Your task to perform on an android device: add a label to a message in the gmail app Image 0: 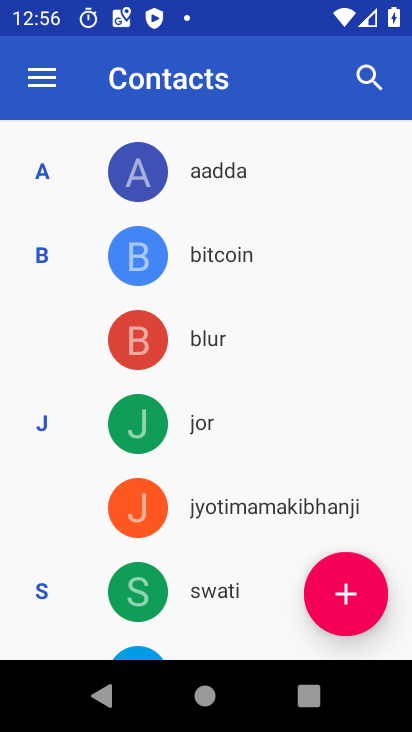
Step 0: press home button
Your task to perform on an android device: add a label to a message in the gmail app Image 1: 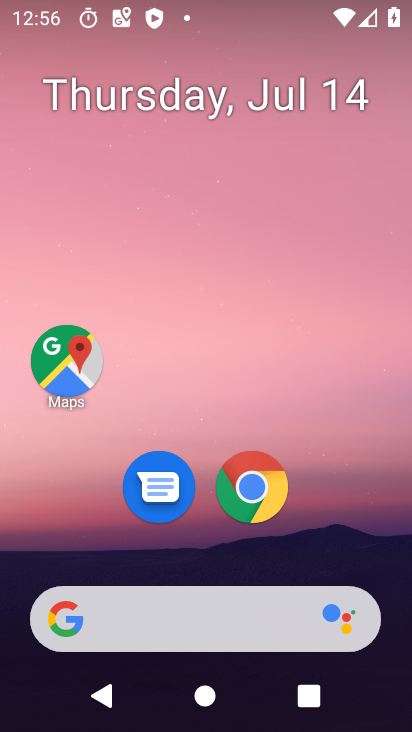
Step 1: drag from (244, 581) to (242, 155)
Your task to perform on an android device: add a label to a message in the gmail app Image 2: 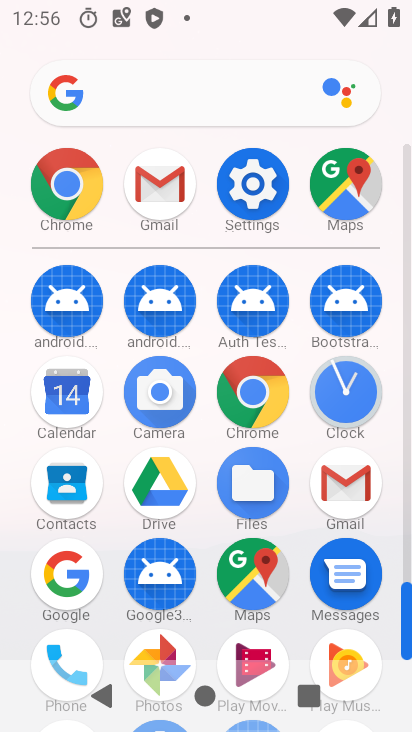
Step 2: click (357, 492)
Your task to perform on an android device: add a label to a message in the gmail app Image 3: 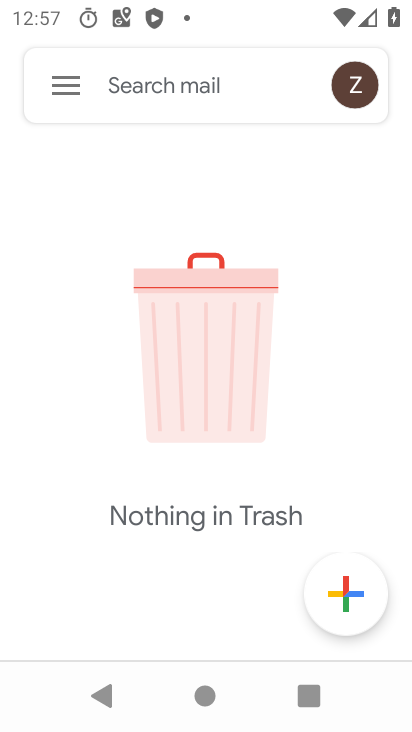
Step 3: click (68, 93)
Your task to perform on an android device: add a label to a message in the gmail app Image 4: 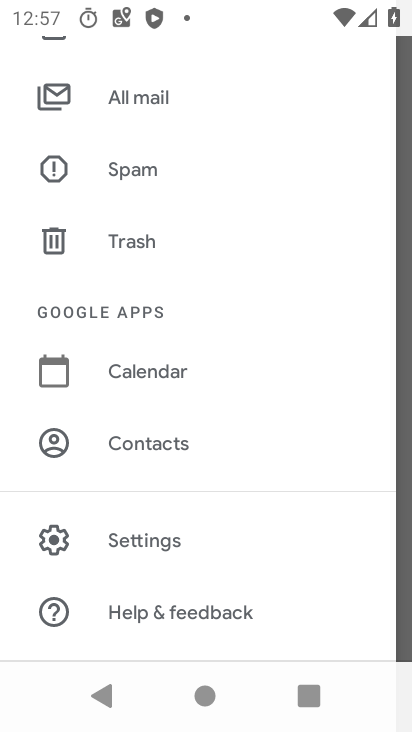
Step 4: click (180, 111)
Your task to perform on an android device: add a label to a message in the gmail app Image 5: 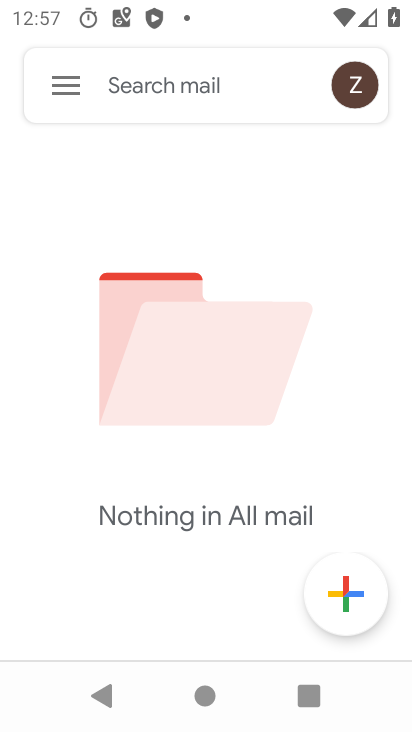
Step 5: task complete